Your task to perform on an android device: open sync settings in chrome Image 0: 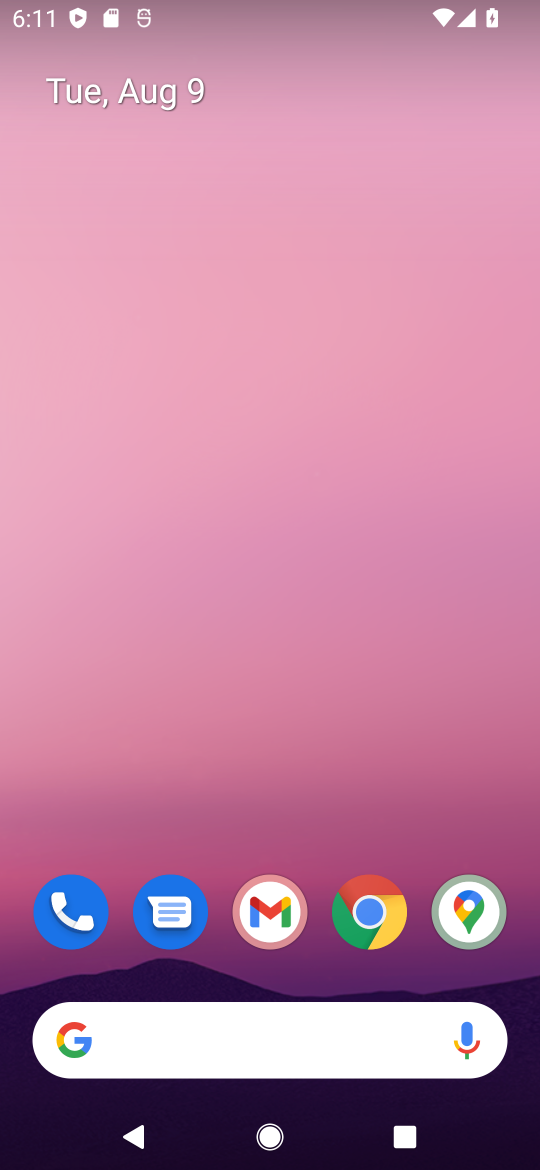
Step 0: click (383, 915)
Your task to perform on an android device: open sync settings in chrome Image 1: 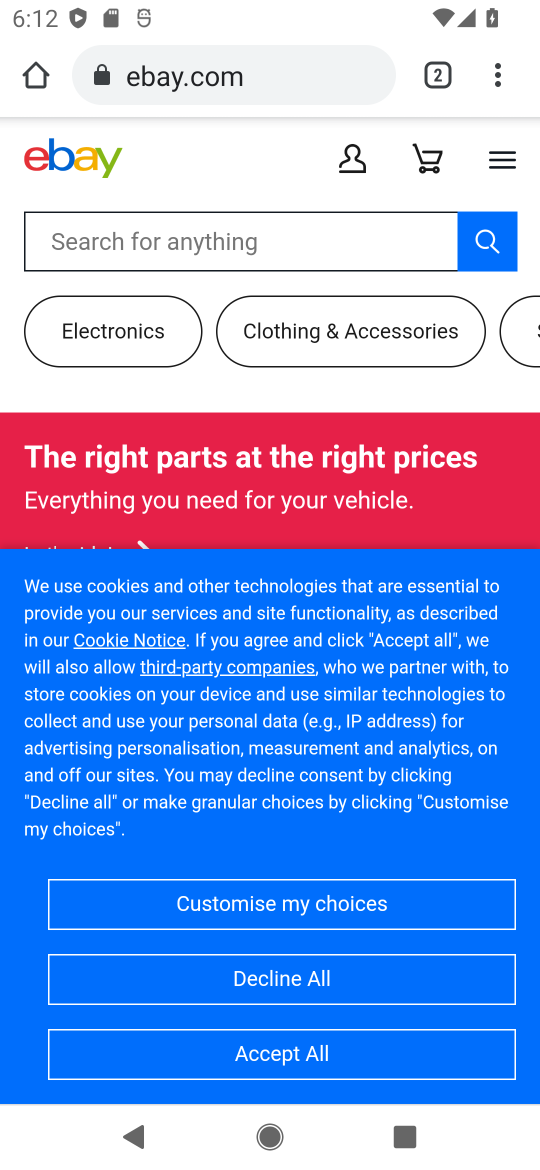
Step 1: drag from (498, 77) to (267, 989)
Your task to perform on an android device: open sync settings in chrome Image 2: 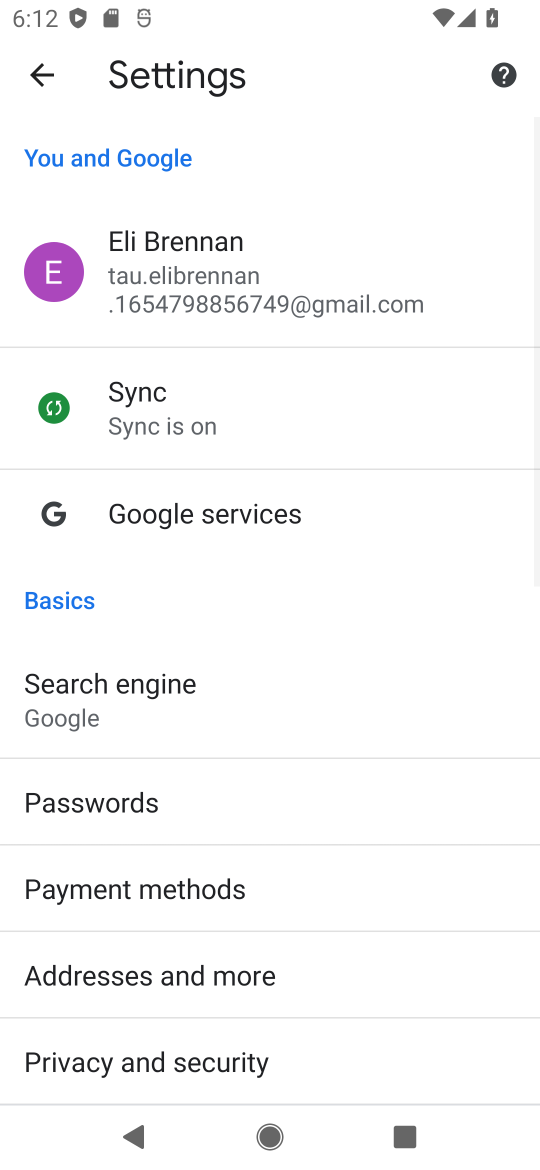
Step 2: click (172, 392)
Your task to perform on an android device: open sync settings in chrome Image 3: 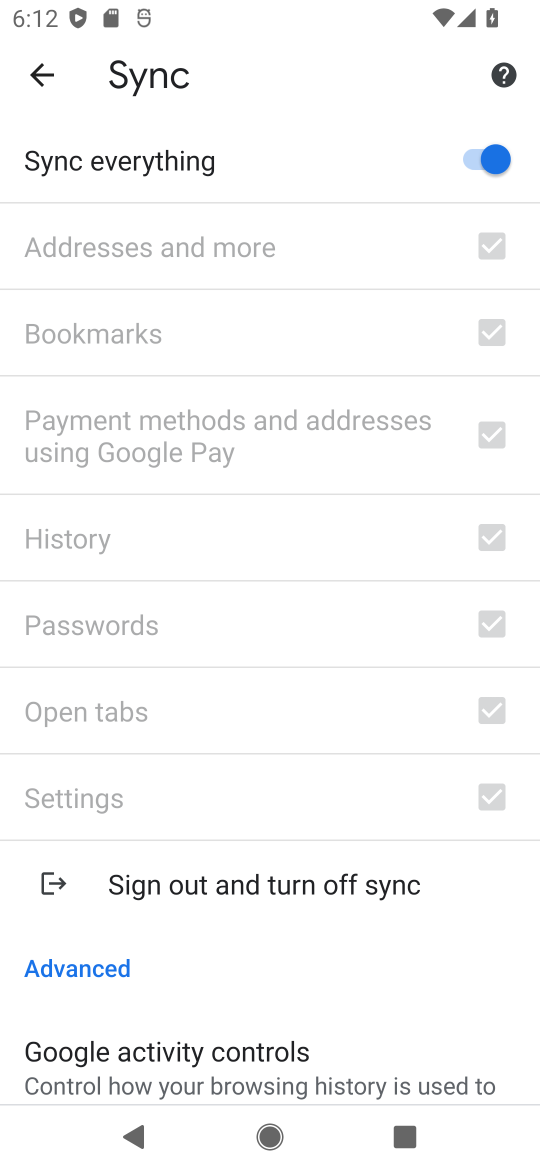
Step 3: task complete